Your task to perform on an android device: Open Wikipedia Image 0: 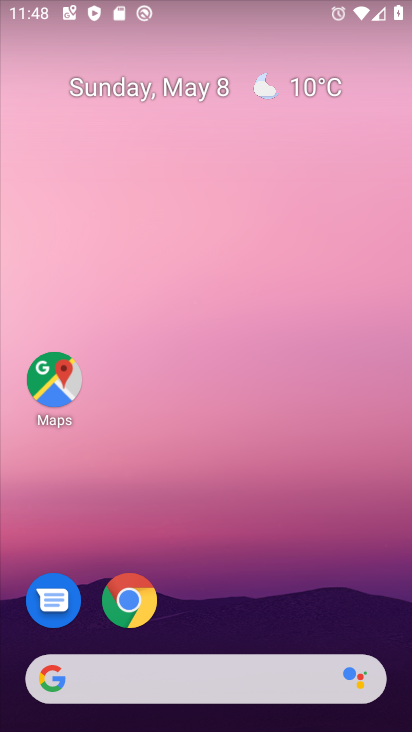
Step 0: click (120, 602)
Your task to perform on an android device: Open Wikipedia Image 1: 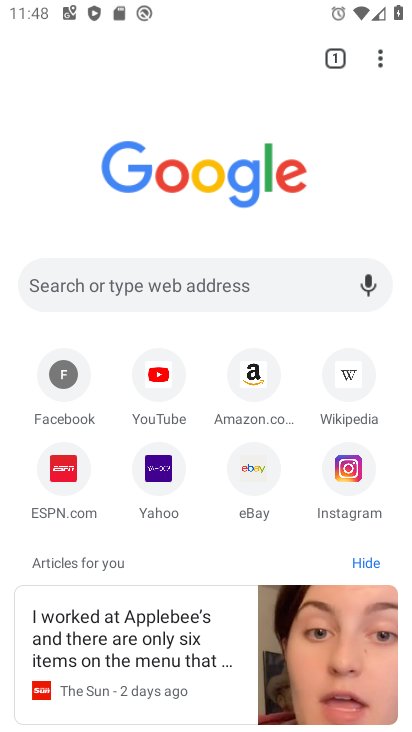
Step 1: click (135, 287)
Your task to perform on an android device: Open Wikipedia Image 2: 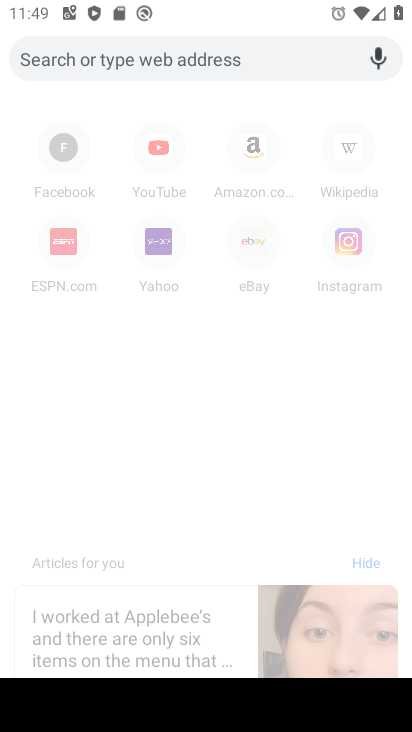
Step 2: type "wikipedia"
Your task to perform on an android device: Open Wikipedia Image 3: 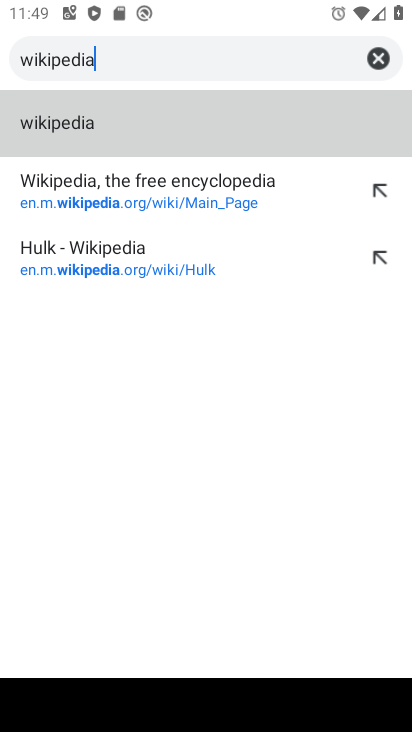
Step 3: click (141, 133)
Your task to perform on an android device: Open Wikipedia Image 4: 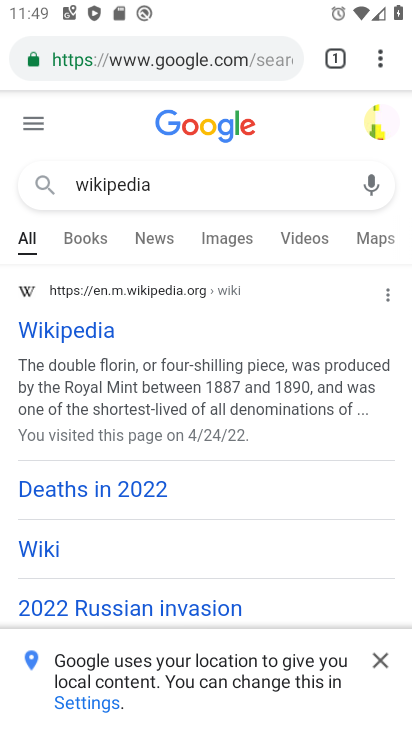
Step 4: task complete